Your task to perform on an android device: delete a single message in the gmail app Image 0: 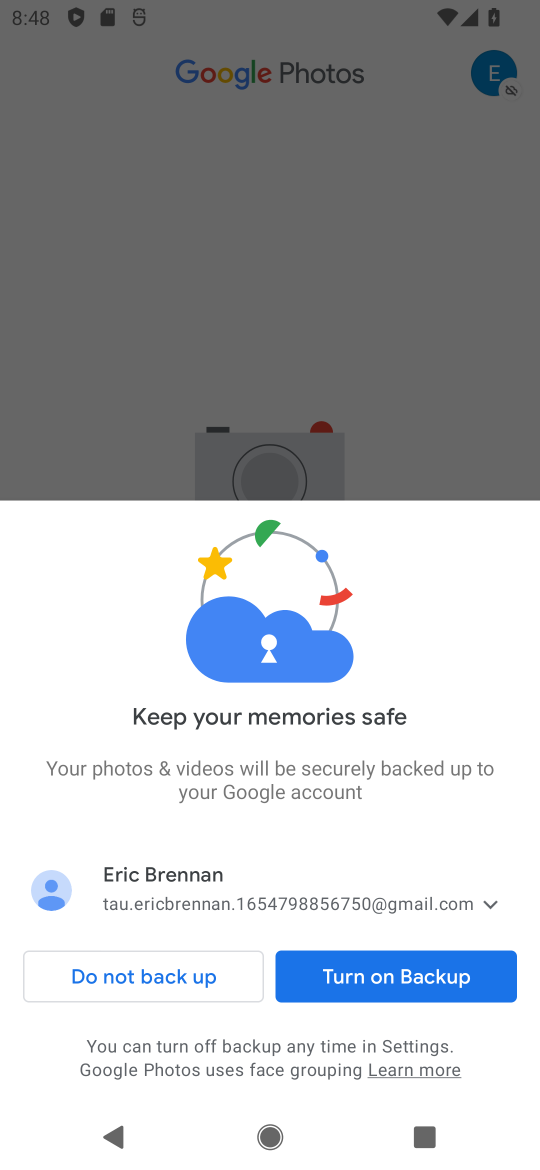
Step 0: press home button
Your task to perform on an android device: delete a single message in the gmail app Image 1: 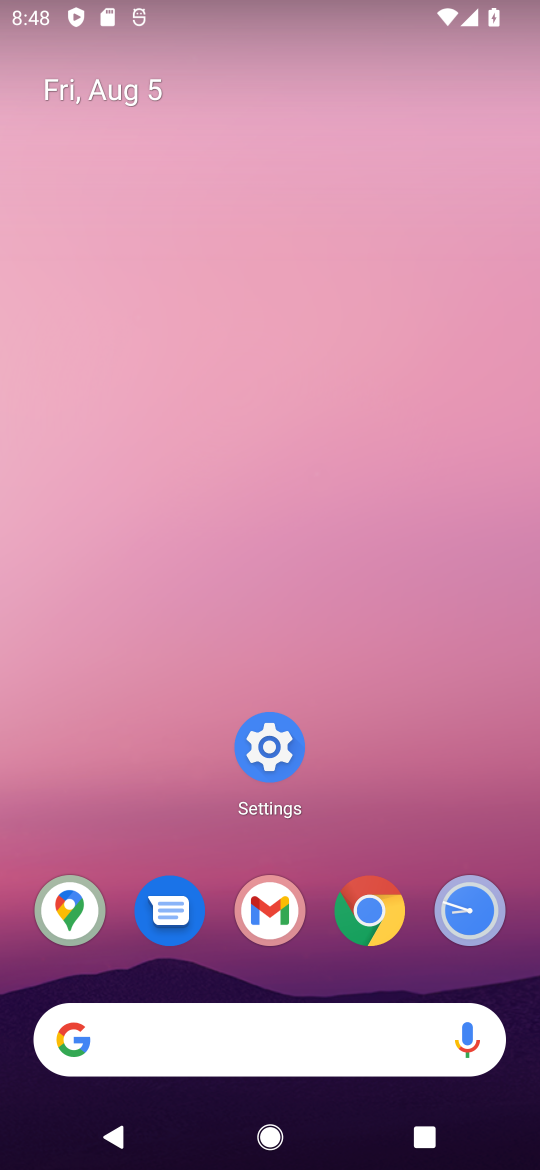
Step 1: click (270, 906)
Your task to perform on an android device: delete a single message in the gmail app Image 2: 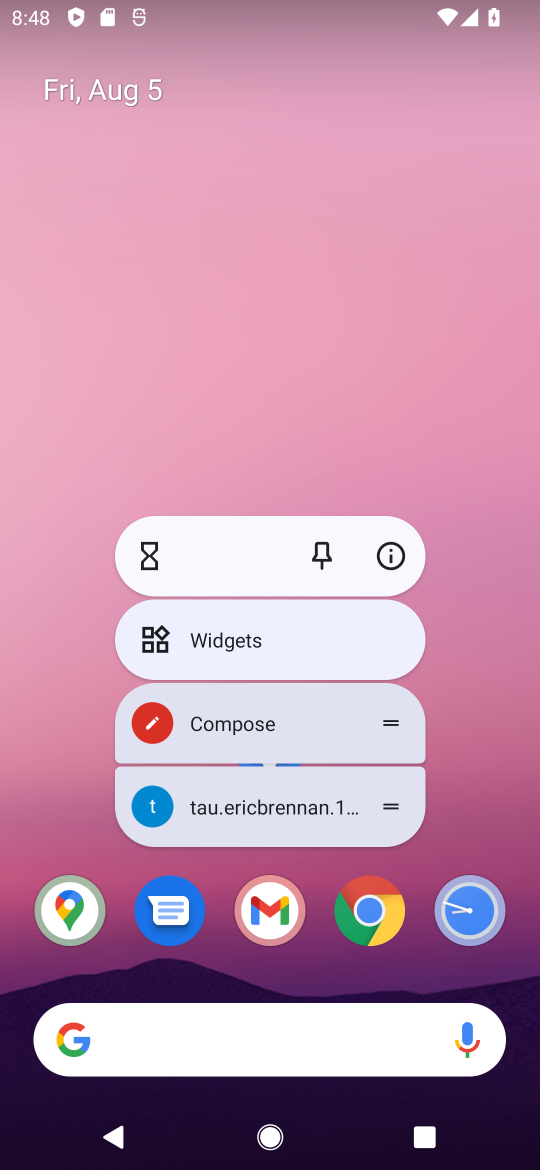
Step 2: click (270, 906)
Your task to perform on an android device: delete a single message in the gmail app Image 3: 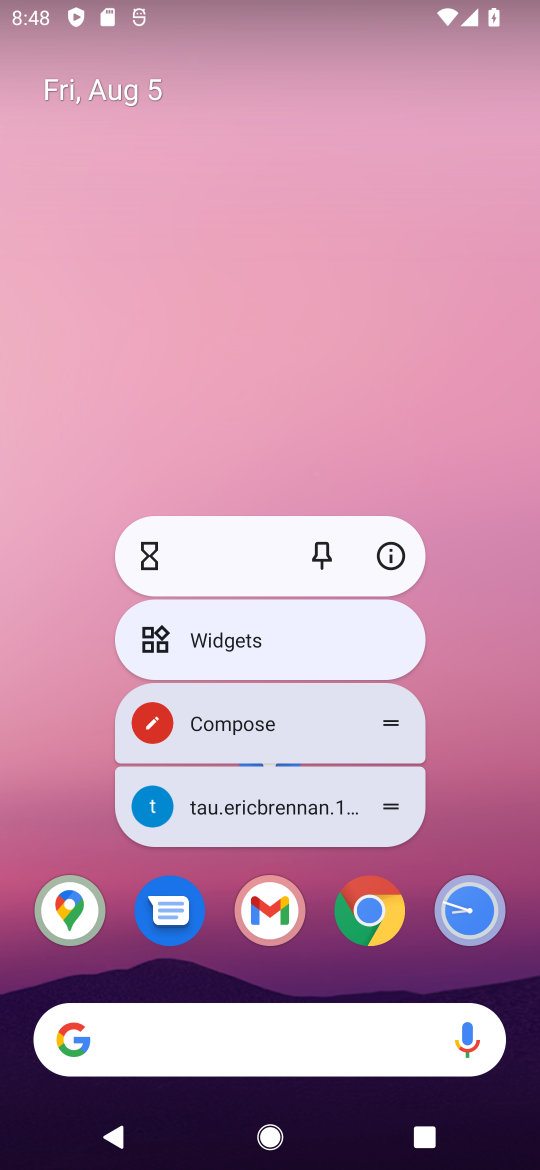
Step 3: click (270, 904)
Your task to perform on an android device: delete a single message in the gmail app Image 4: 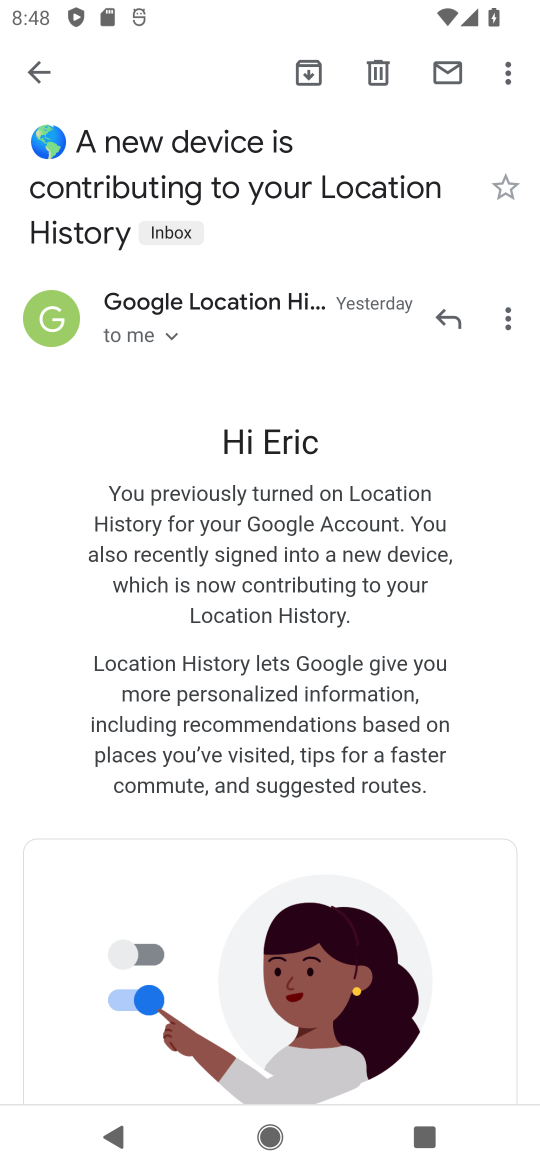
Step 4: click (33, 60)
Your task to perform on an android device: delete a single message in the gmail app Image 5: 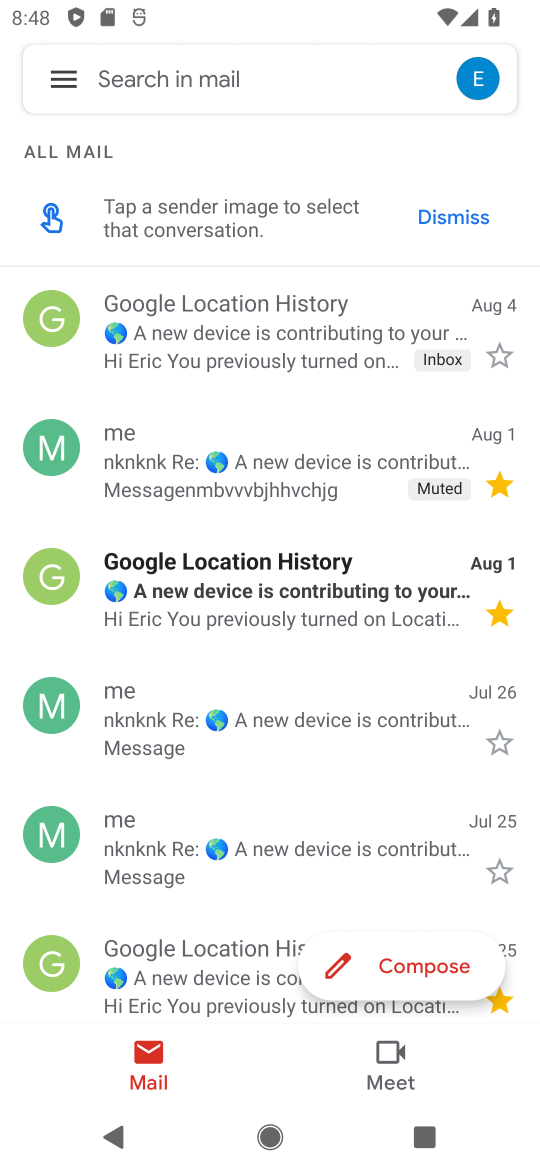
Step 5: click (46, 301)
Your task to perform on an android device: delete a single message in the gmail app Image 6: 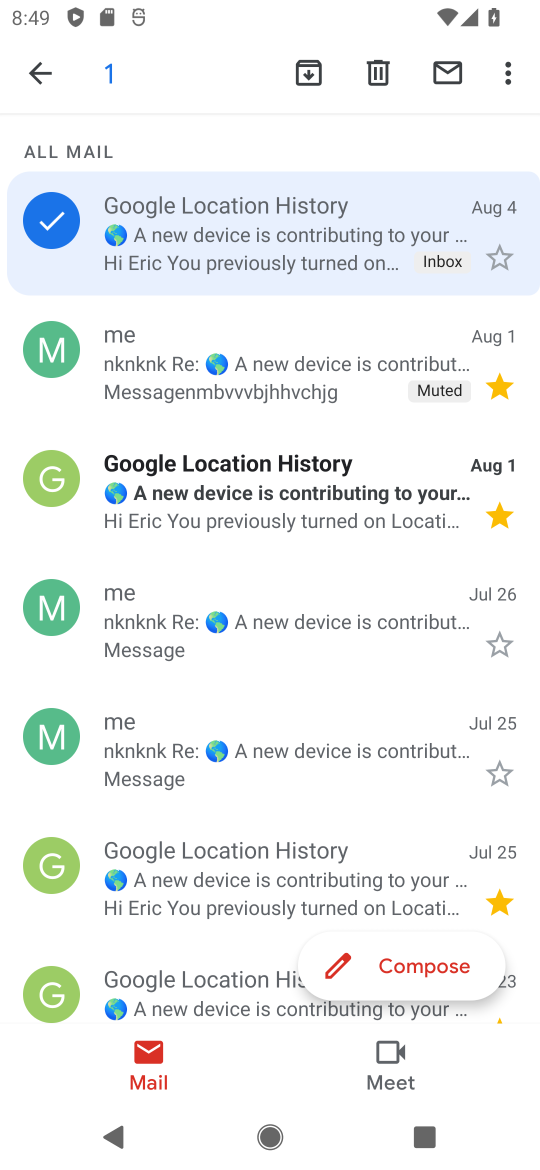
Step 6: click (370, 68)
Your task to perform on an android device: delete a single message in the gmail app Image 7: 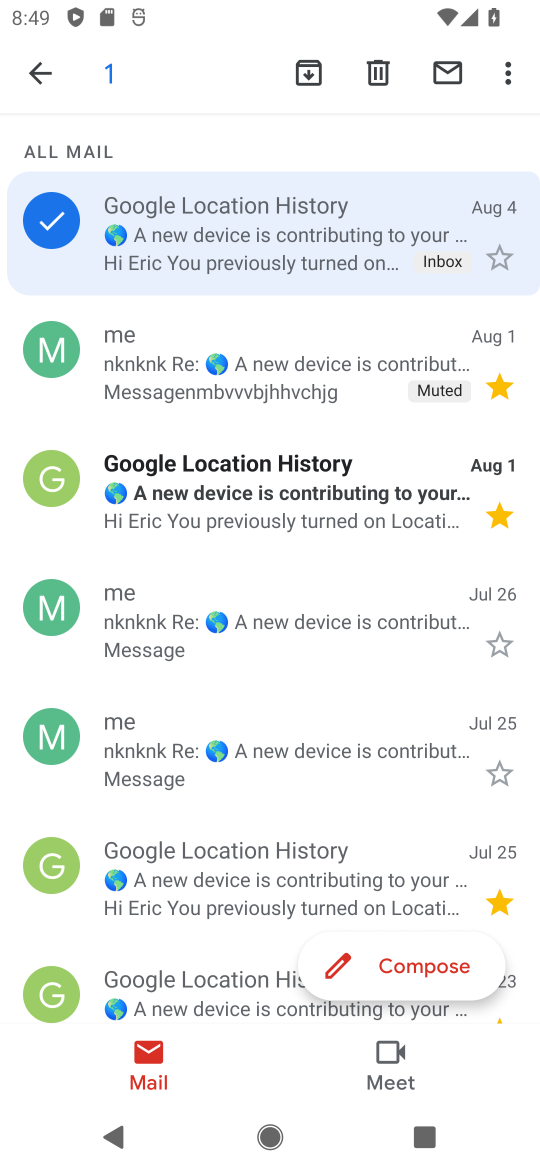
Step 7: click (380, 68)
Your task to perform on an android device: delete a single message in the gmail app Image 8: 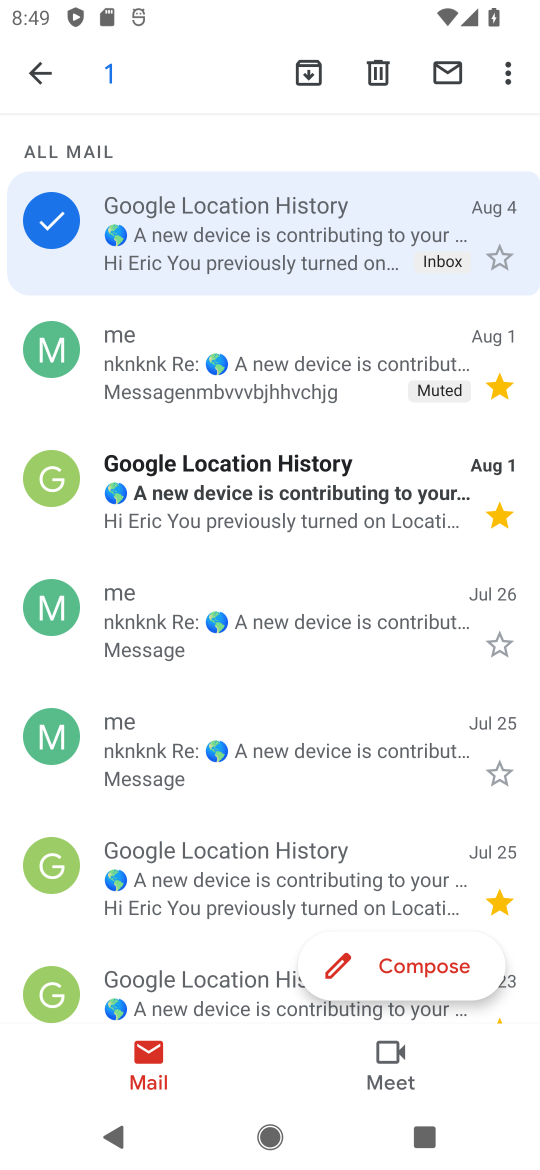
Step 8: click (374, 77)
Your task to perform on an android device: delete a single message in the gmail app Image 9: 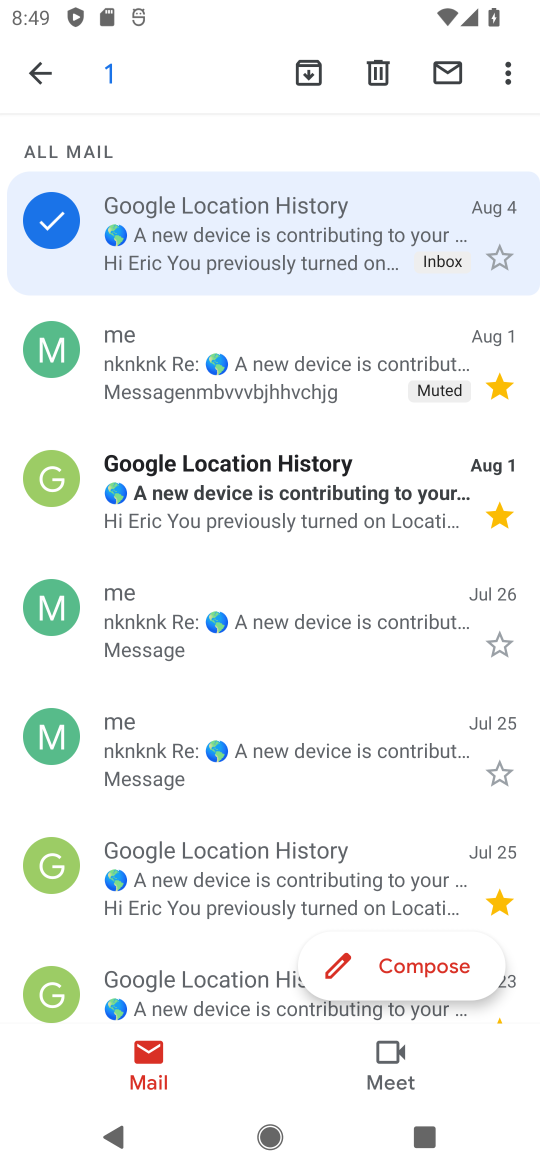
Step 9: click (57, 217)
Your task to perform on an android device: delete a single message in the gmail app Image 10: 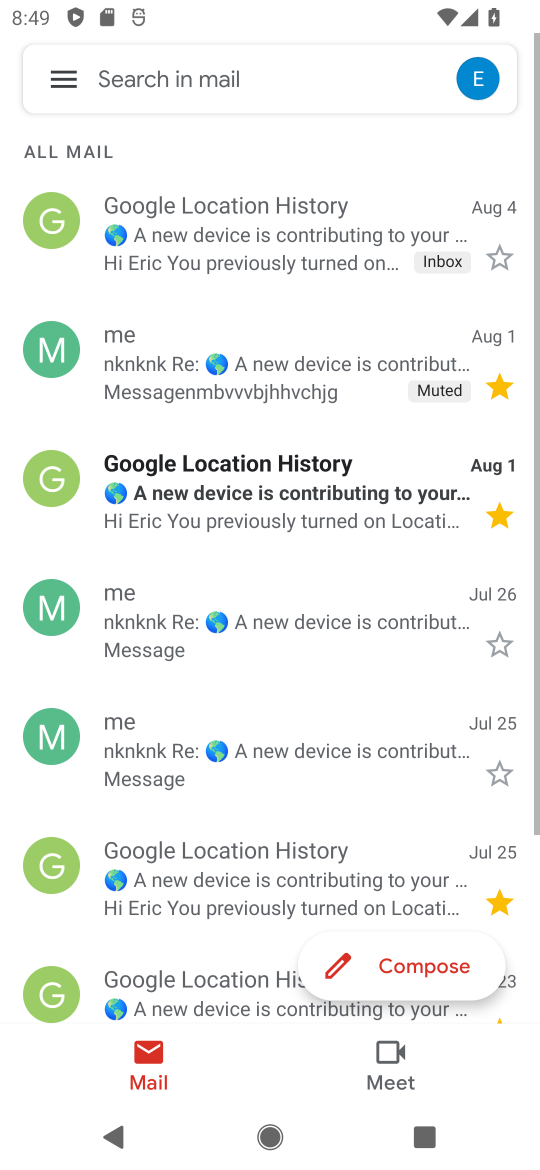
Step 10: click (59, 218)
Your task to perform on an android device: delete a single message in the gmail app Image 11: 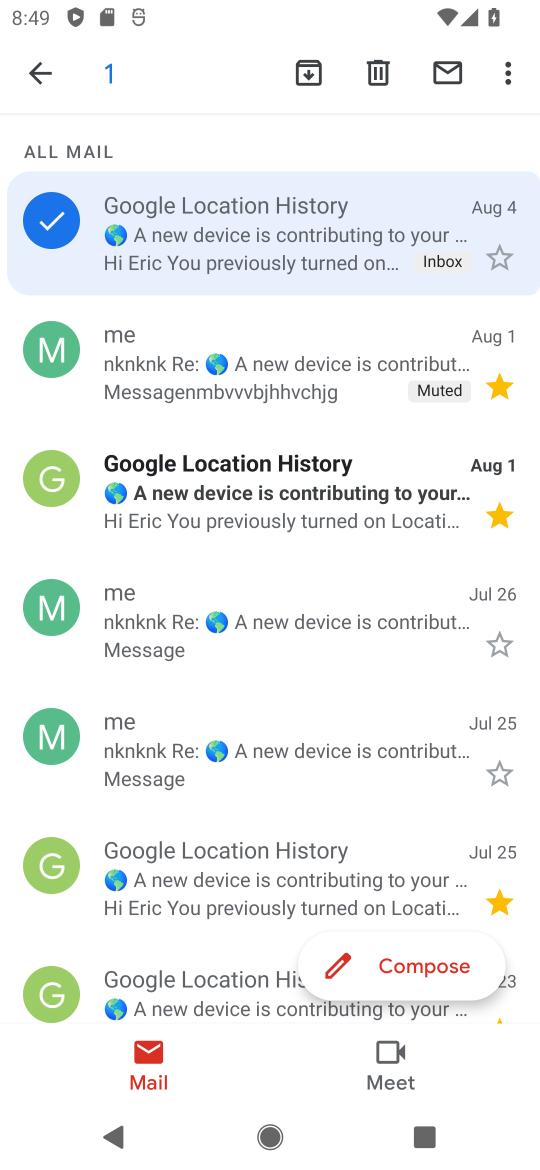
Step 11: click (377, 75)
Your task to perform on an android device: delete a single message in the gmail app Image 12: 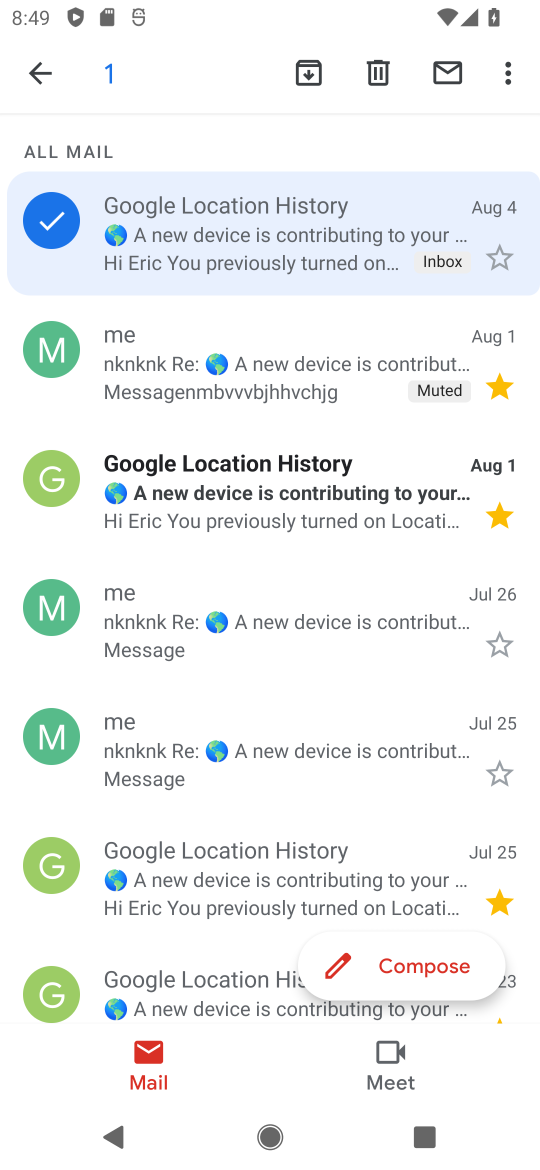
Step 12: click (361, 144)
Your task to perform on an android device: delete a single message in the gmail app Image 13: 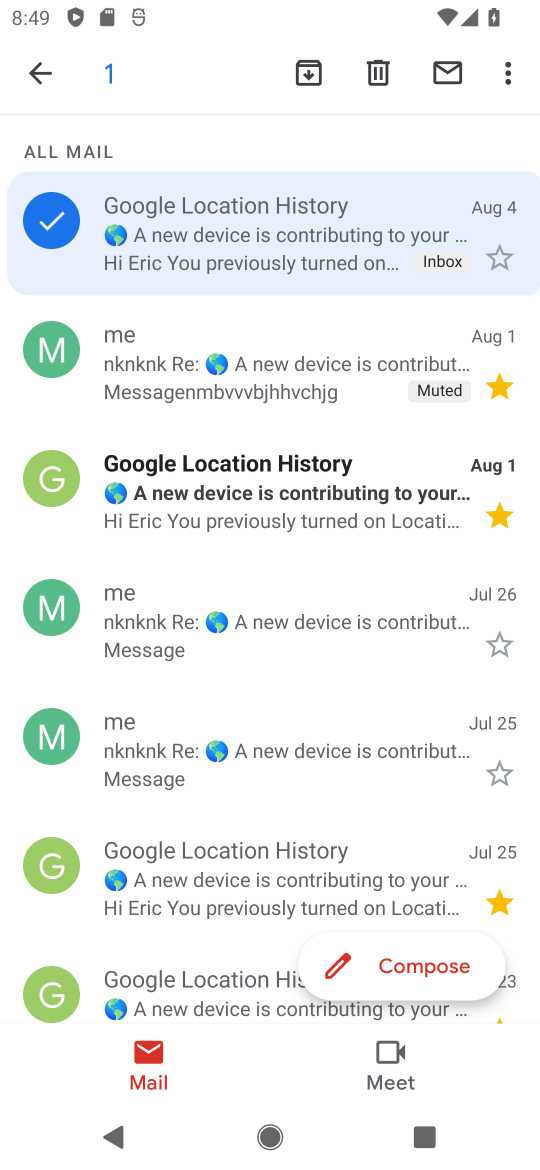
Step 13: click (379, 72)
Your task to perform on an android device: delete a single message in the gmail app Image 14: 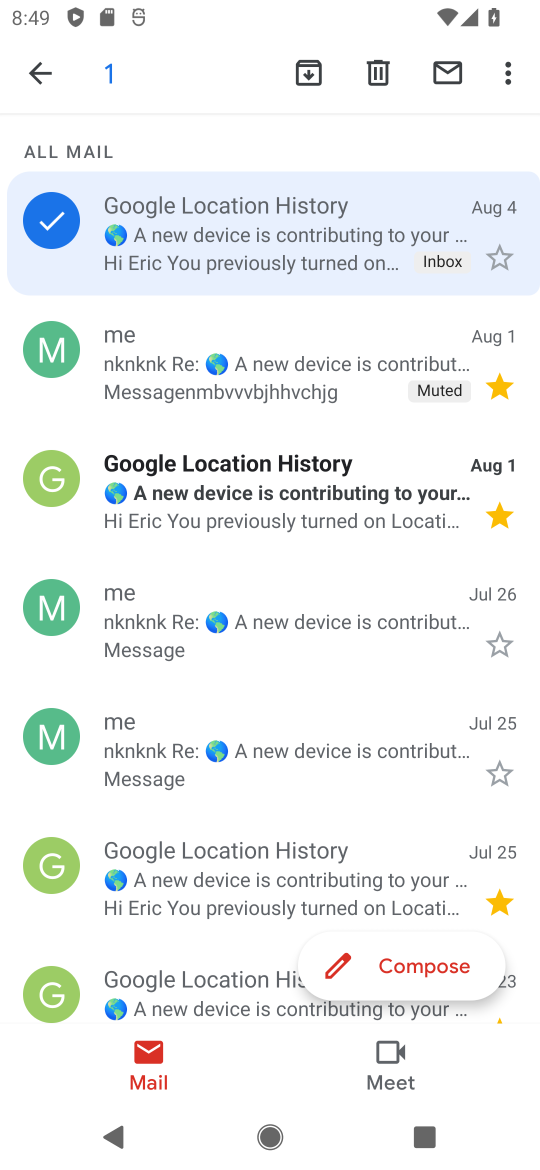
Step 14: click (382, 69)
Your task to perform on an android device: delete a single message in the gmail app Image 15: 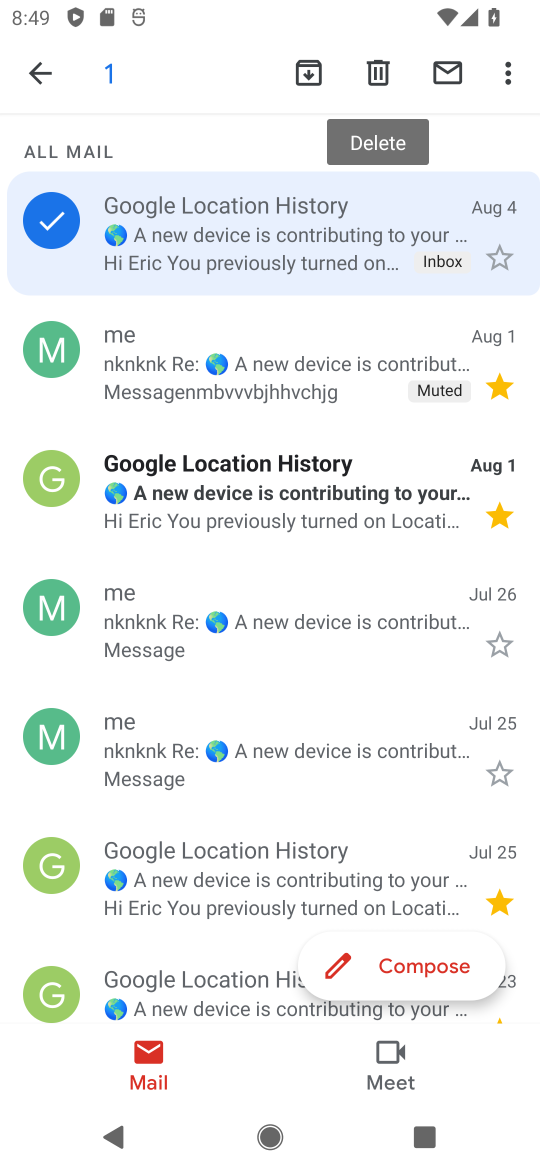
Step 15: click (382, 69)
Your task to perform on an android device: delete a single message in the gmail app Image 16: 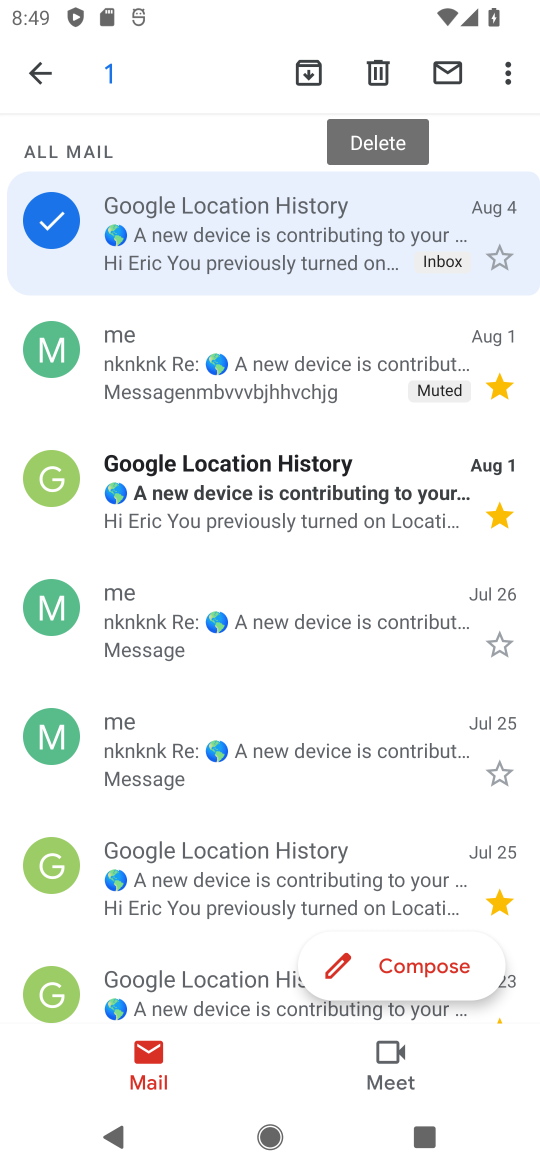
Step 16: click (47, 352)
Your task to perform on an android device: delete a single message in the gmail app Image 17: 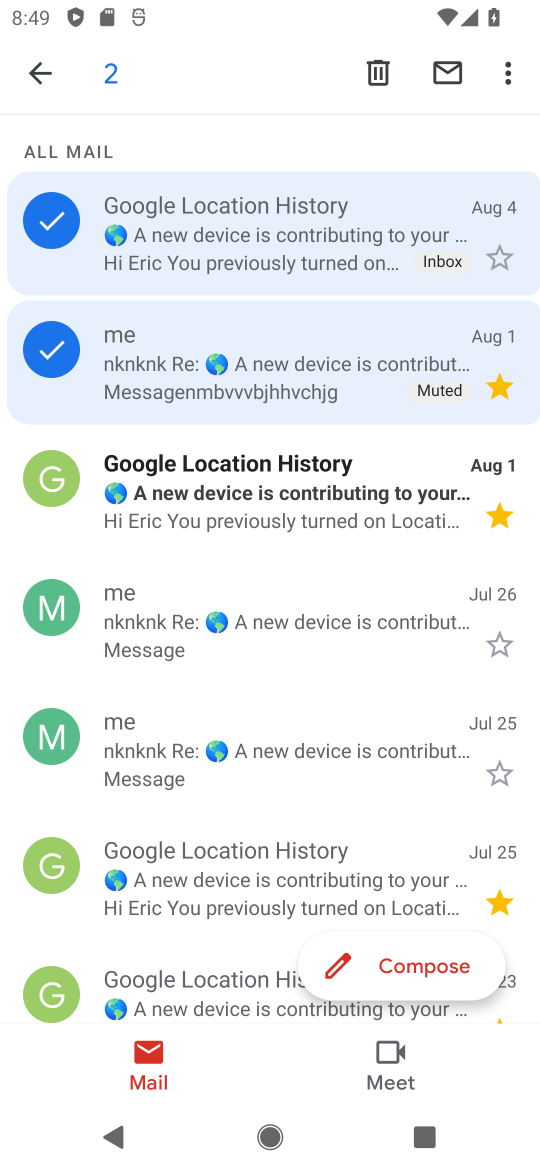
Step 17: click (55, 208)
Your task to perform on an android device: delete a single message in the gmail app Image 18: 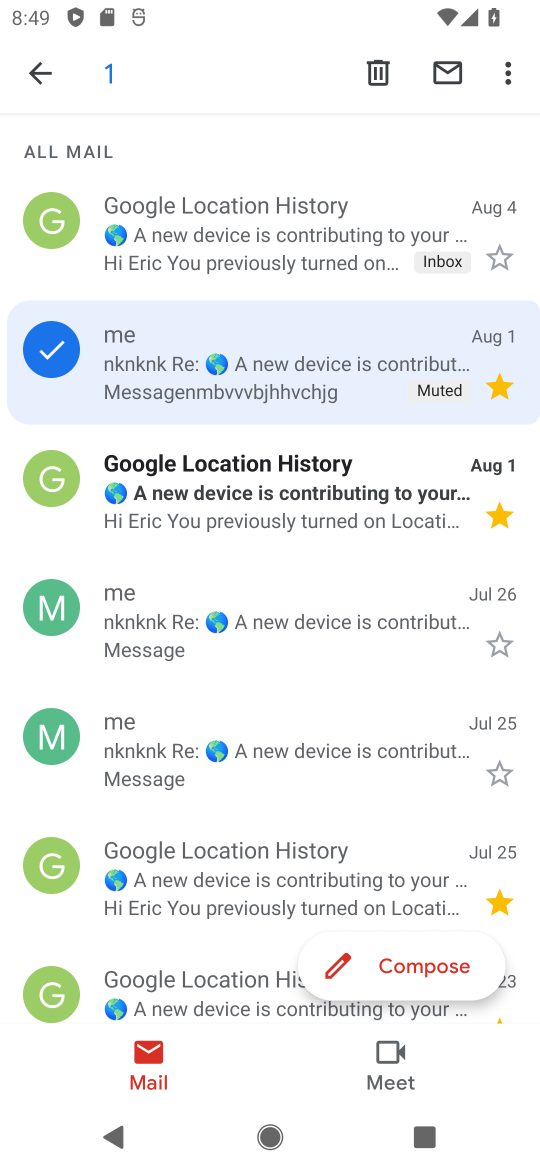
Step 18: click (384, 73)
Your task to perform on an android device: delete a single message in the gmail app Image 19: 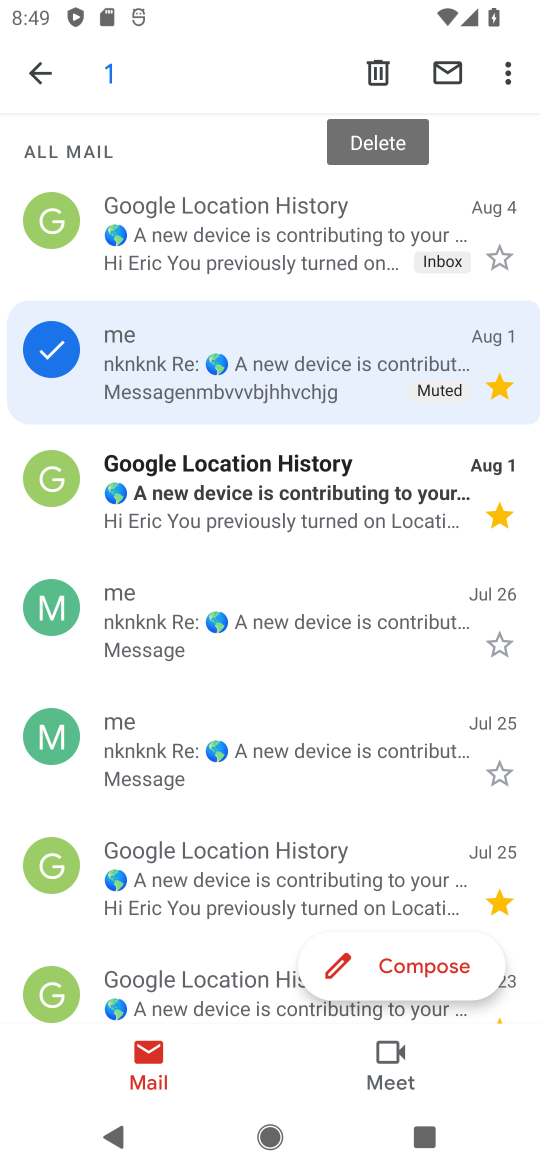
Step 19: click (378, 72)
Your task to perform on an android device: delete a single message in the gmail app Image 20: 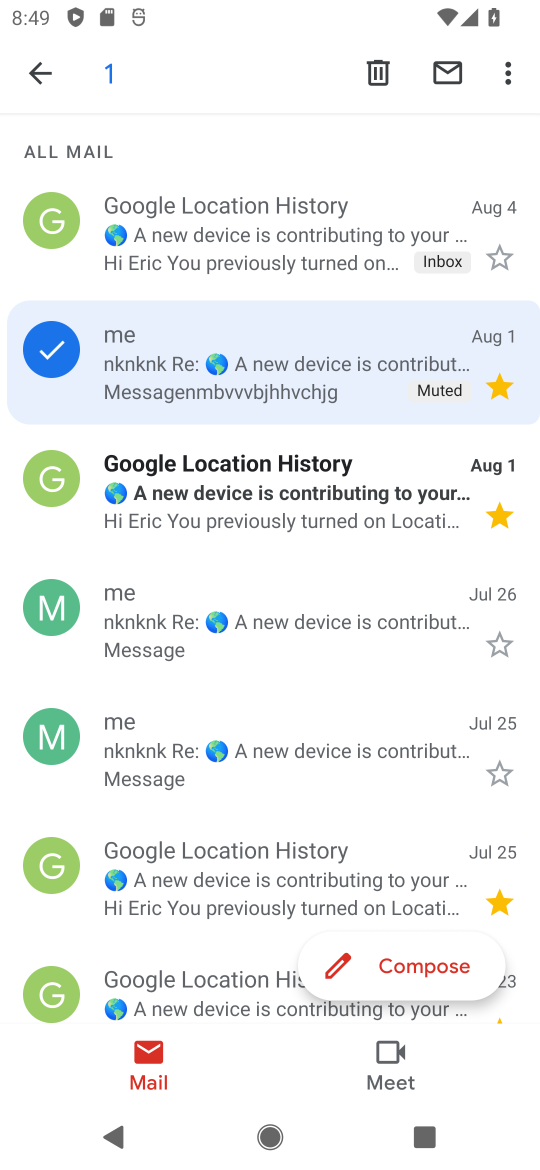
Step 20: task complete